Your task to perform on an android device: Go to Amazon Image 0: 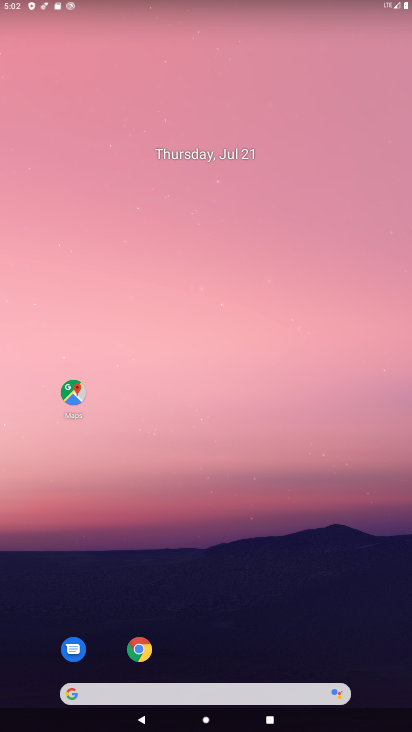
Step 0: click (134, 646)
Your task to perform on an android device: Go to Amazon Image 1: 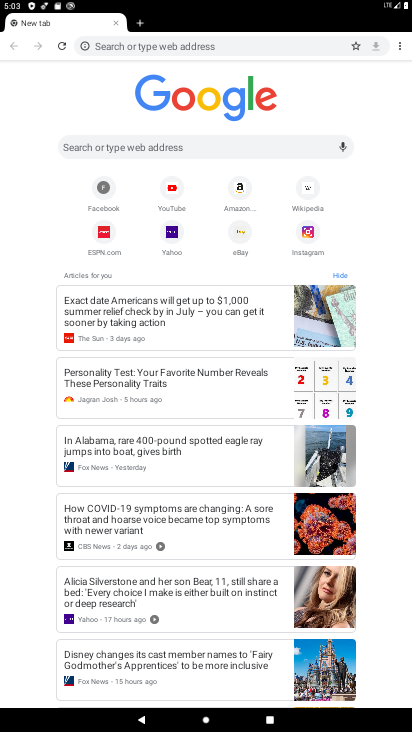
Step 1: click (241, 197)
Your task to perform on an android device: Go to Amazon Image 2: 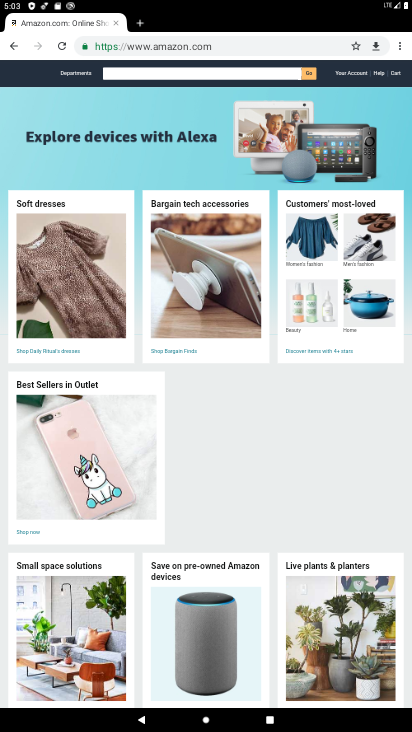
Step 2: task complete